Your task to perform on an android device: Open the calendar and show me this week's events? Image 0: 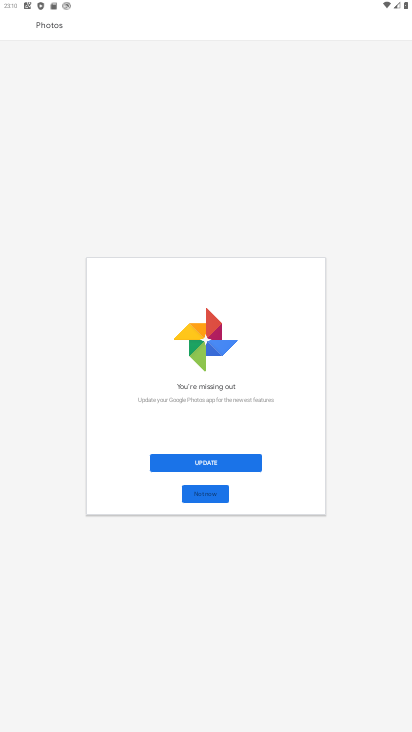
Step 0: press home button
Your task to perform on an android device: Open the calendar and show me this week's events? Image 1: 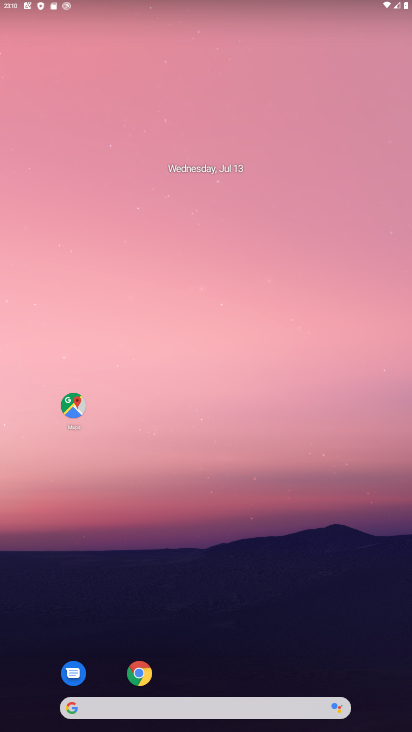
Step 1: drag from (232, 652) to (212, 164)
Your task to perform on an android device: Open the calendar and show me this week's events? Image 2: 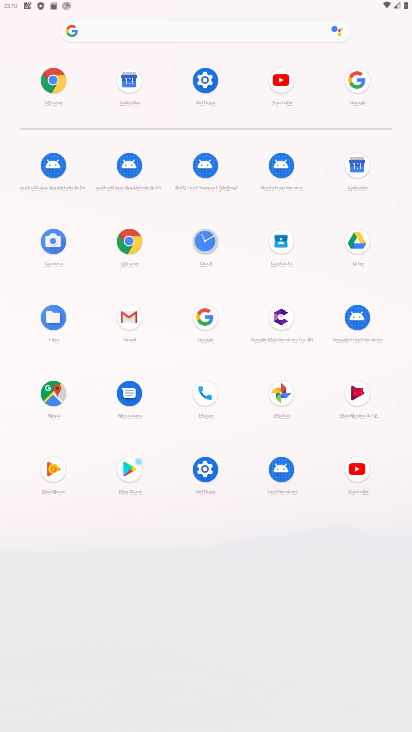
Step 2: click (364, 174)
Your task to perform on an android device: Open the calendar and show me this week's events? Image 3: 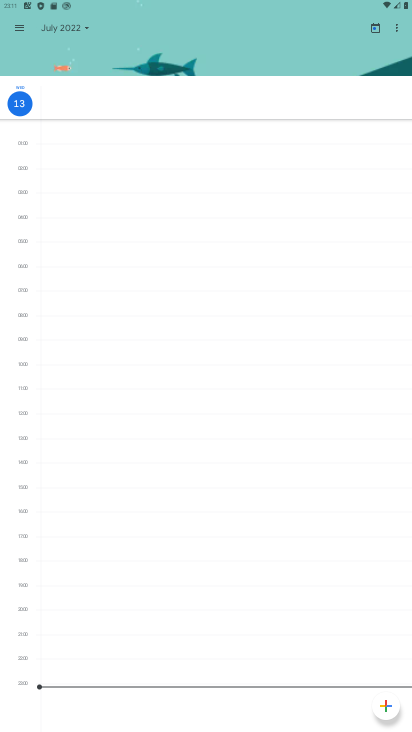
Step 3: click (73, 20)
Your task to perform on an android device: Open the calendar and show me this week's events? Image 4: 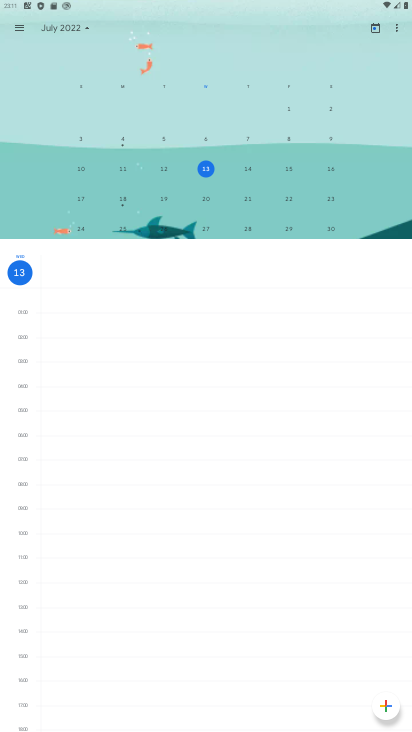
Step 4: task complete